Your task to perform on an android device: Open CNN.com Image 0: 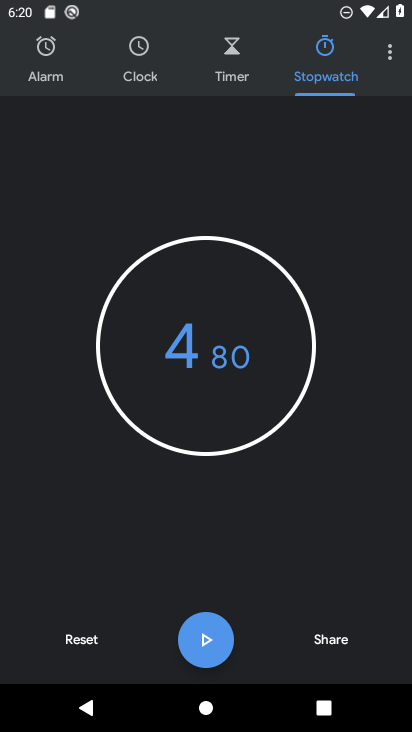
Step 0: press home button
Your task to perform on an android device: Open CNN.com Image 1: 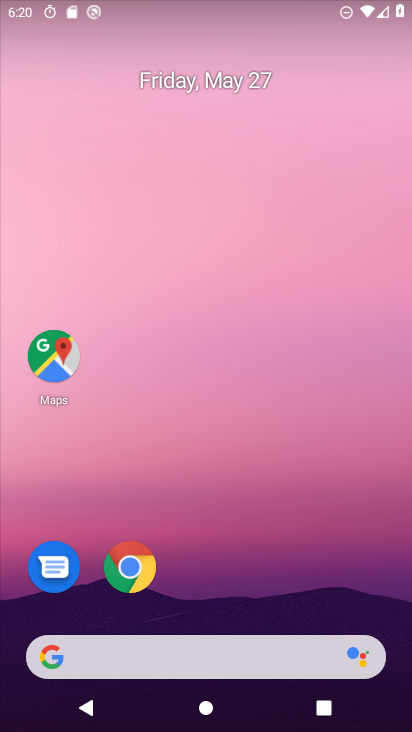
Step 1: click (127, 567)
Your task to perform on an android device: Open CNN.com Image 2: 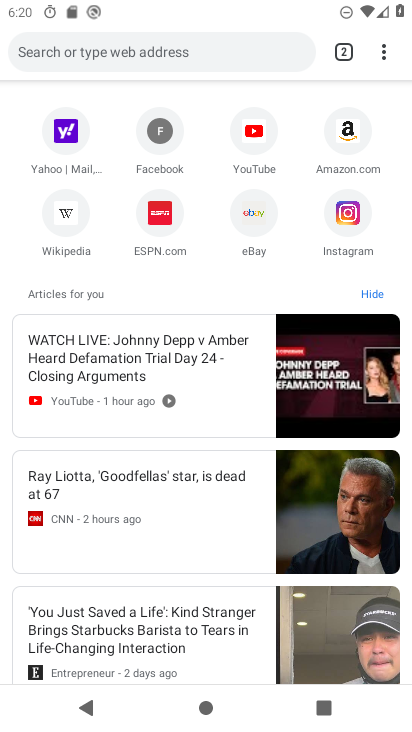
Step 2: click (155, 39)
Your task to perform on an android device: Open CNN.com Image 3: 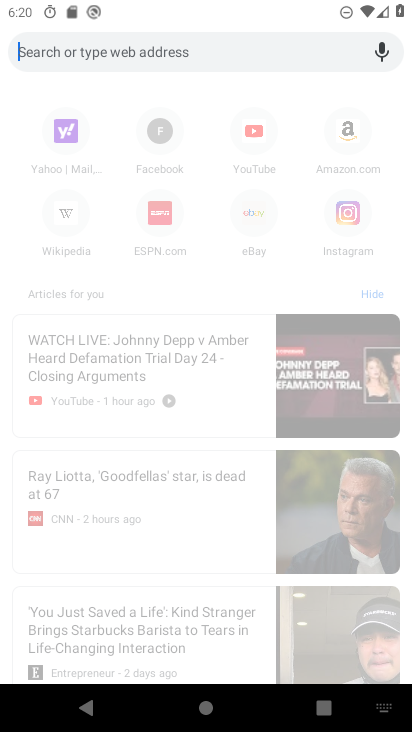
Step 3: type "www.cnn.com"
Your task to perform on an android device: Open CNN.com Image 4: 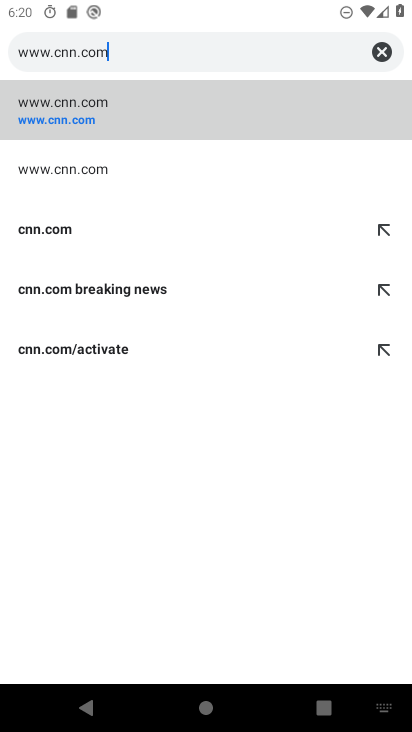
Step 4: click (49, 113)
Your task to perform on an android device: Open CNN.com Image 5: 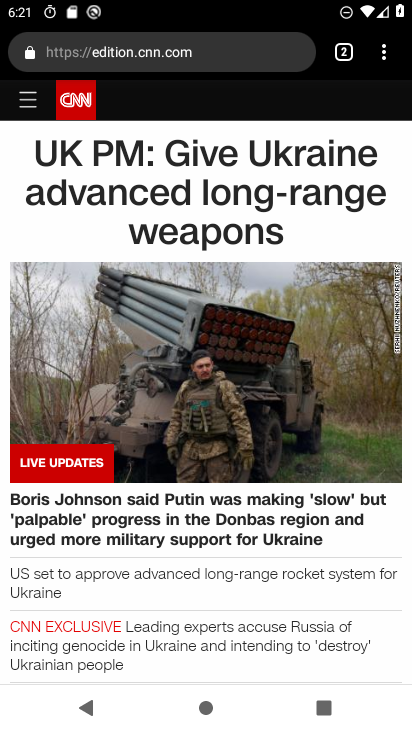
Step 5: task complete